Your task to perform on an android device: uninstall "Flipkart Online Shopping App" Image 0: 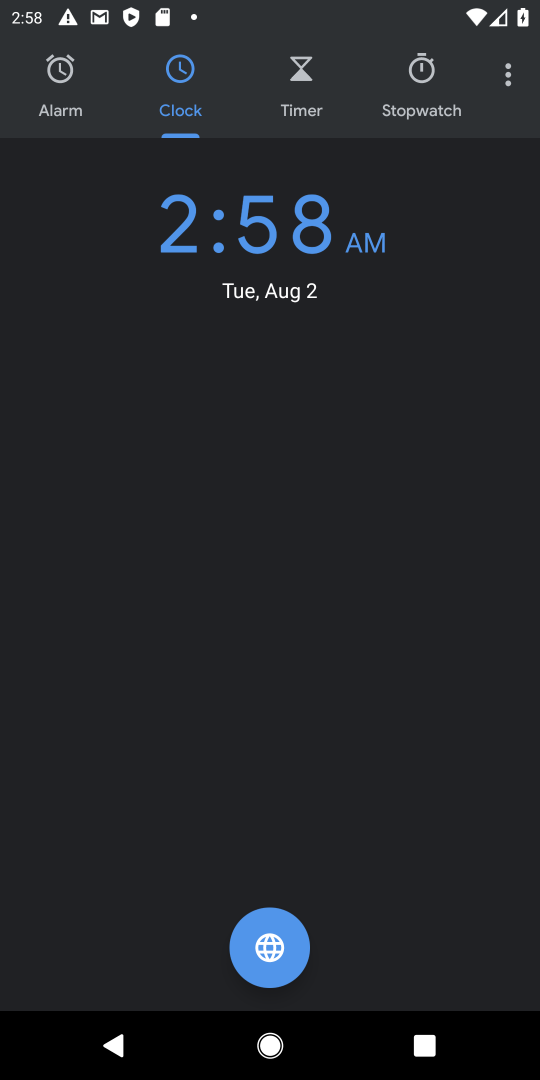
Step 0: press home button
Your task to perform on an android device: uninstall "Flipkart Online Shopping App" Image 1: 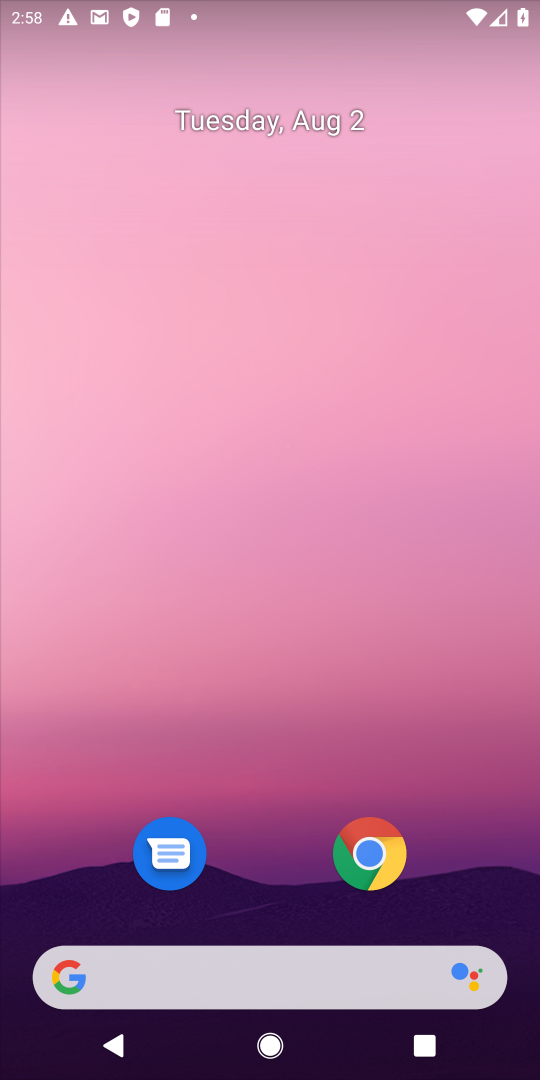
Step 1: drag from (331, 1000) to (300, 74)
Your task to perform on an android device: uninstall "Flipkart Online Shopping App" Image 2: 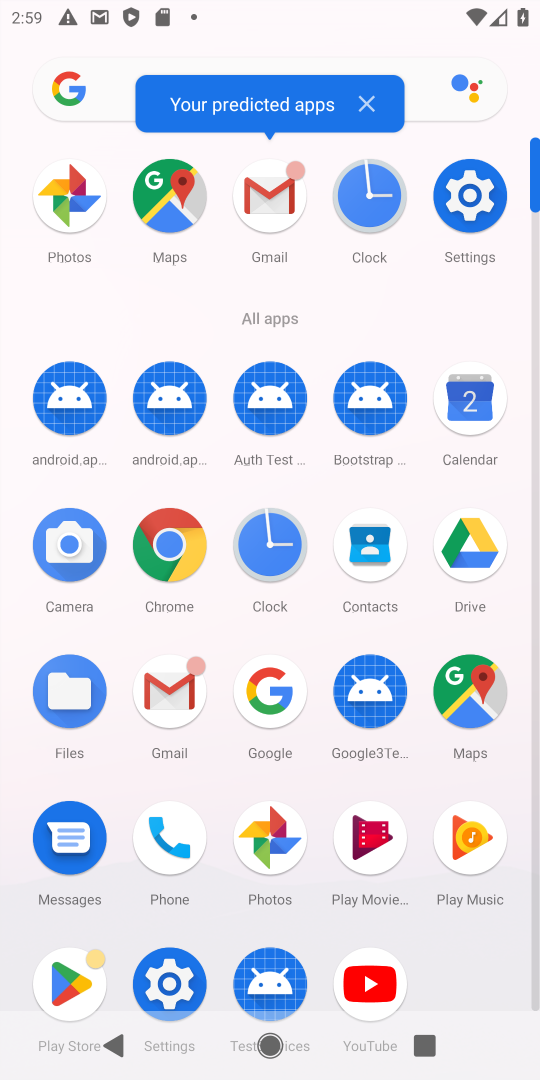
Step 2: click (55, 975)
Your task to perform on an android device: uninstall "Flipkart Online Shopping App" Image 3: 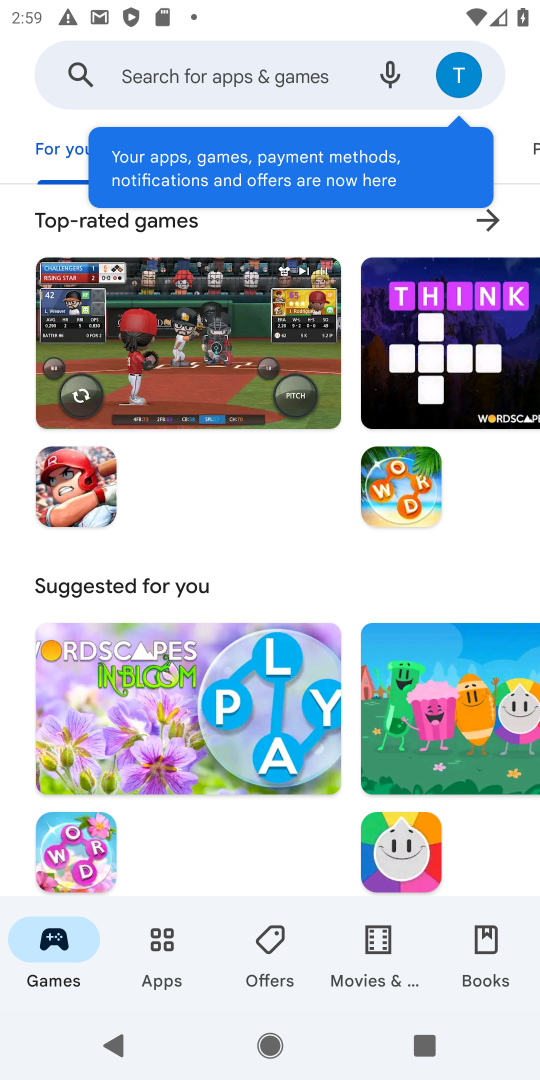
Step 3: click (257, 72)
Your task to perform on an android device: uninstall "Flipkart Online Shopping App" Image 4: 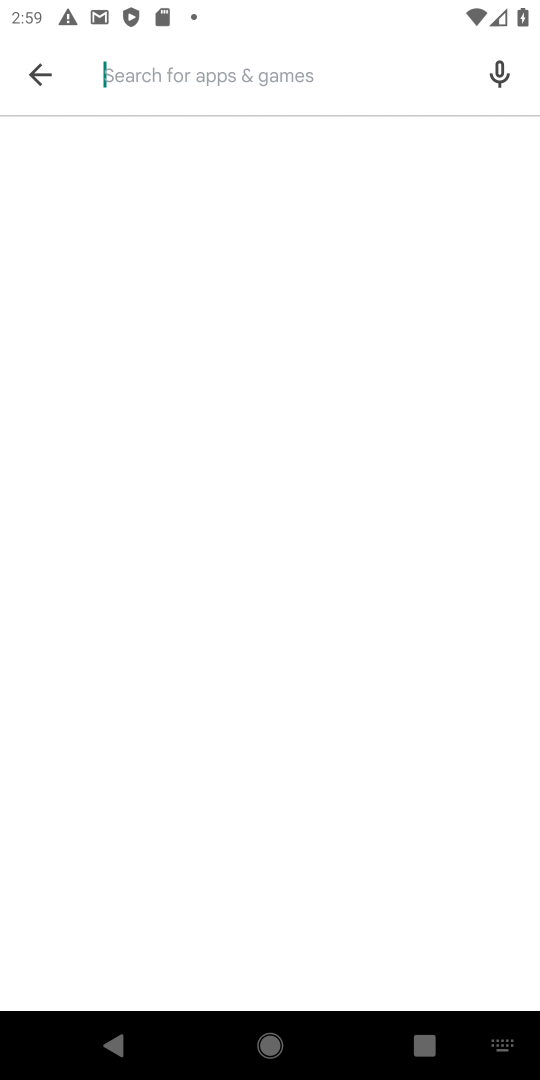
Step 4: type "Flipkart Online Shopping App"
Your task to perform on an android device: uninstall "Flipkart Online Shopping App" Image 5: 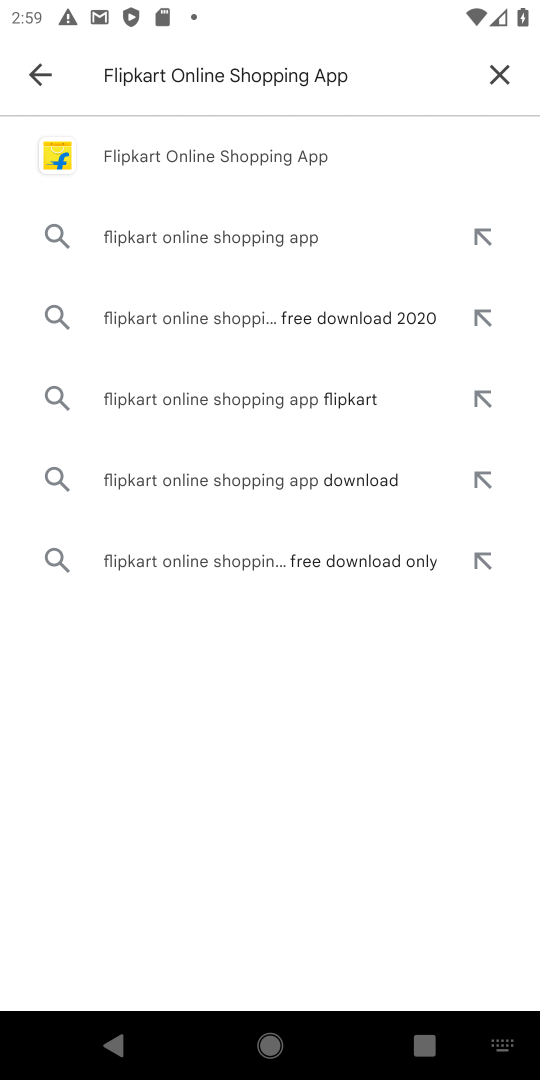
Step 5: click (262, 148)
Your task to perform on an android device: uninstall "Flipkart Online Shopping App" Image 6: 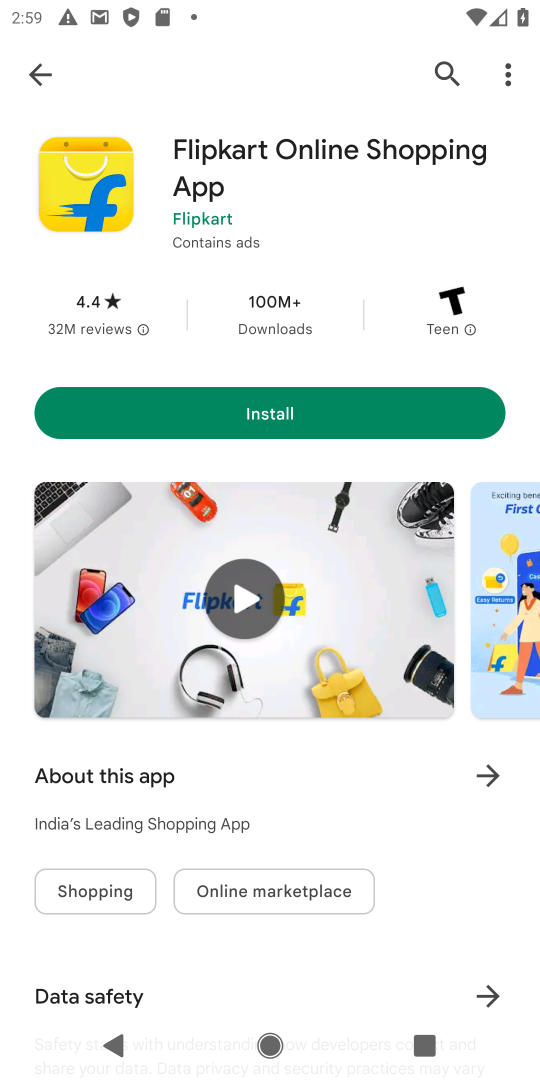
Step 6: task complete